Your task to perform on an android device: change text size in settings app Image 0: 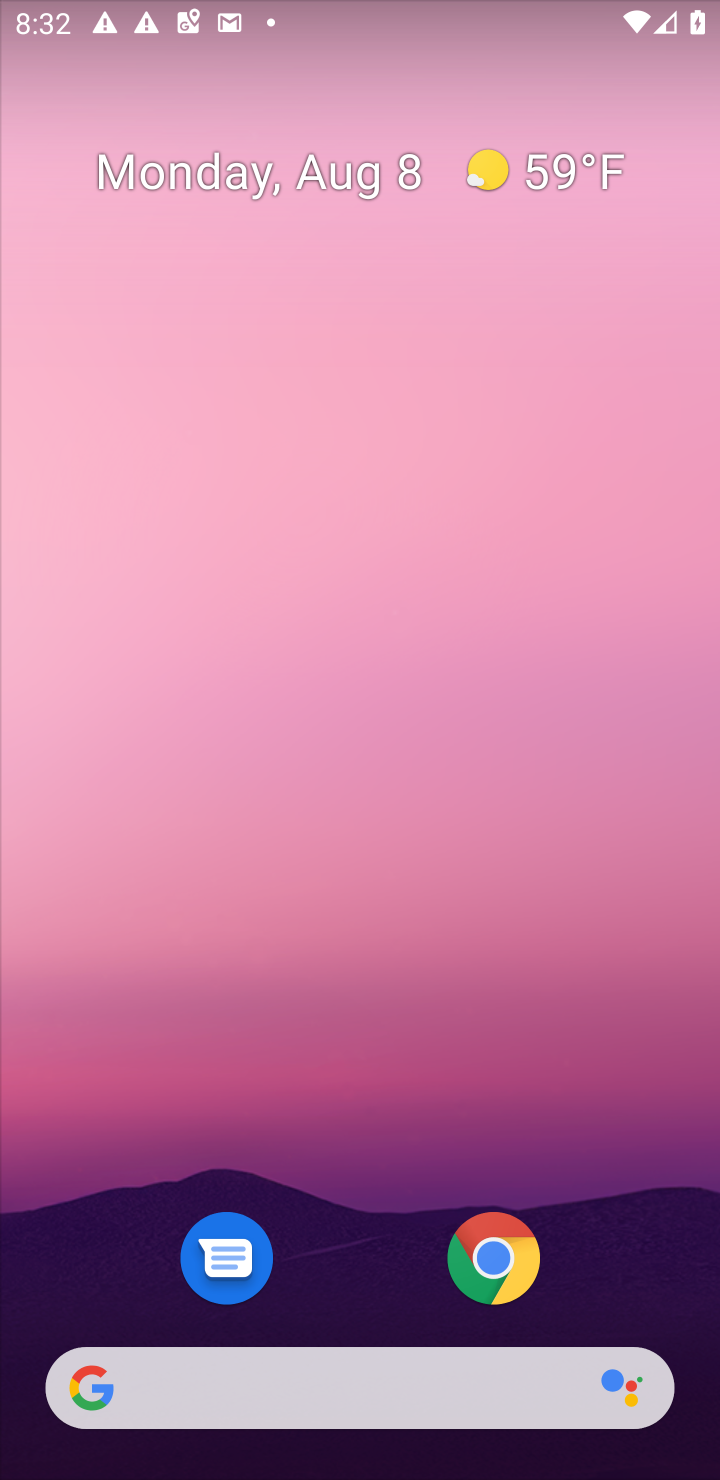
Step 0: drag from (435, 1110) to (350, 98)
Your task to perform on an android device: change text size in settings app Image 1: 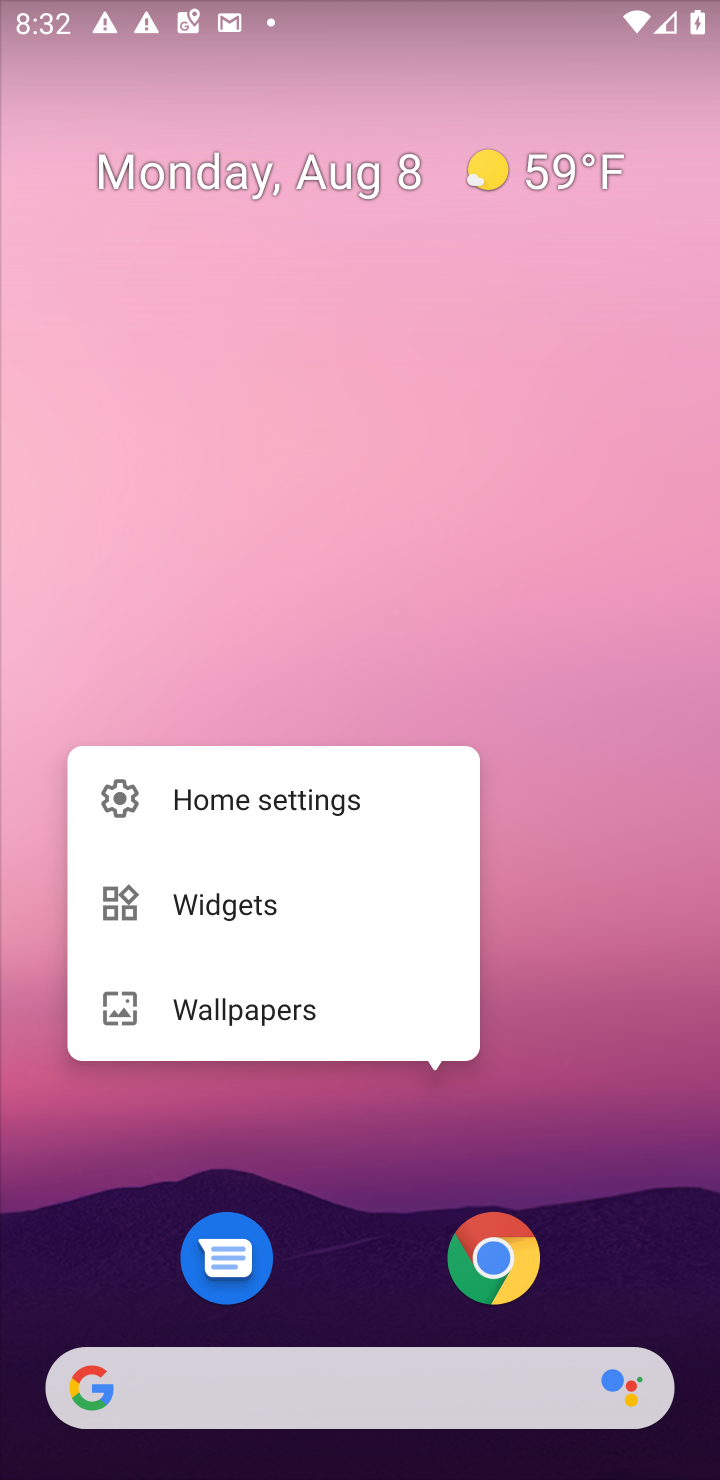
Step 1: click (531, 870)
Your task to perform on an android device: change text size in settings app Image 2: 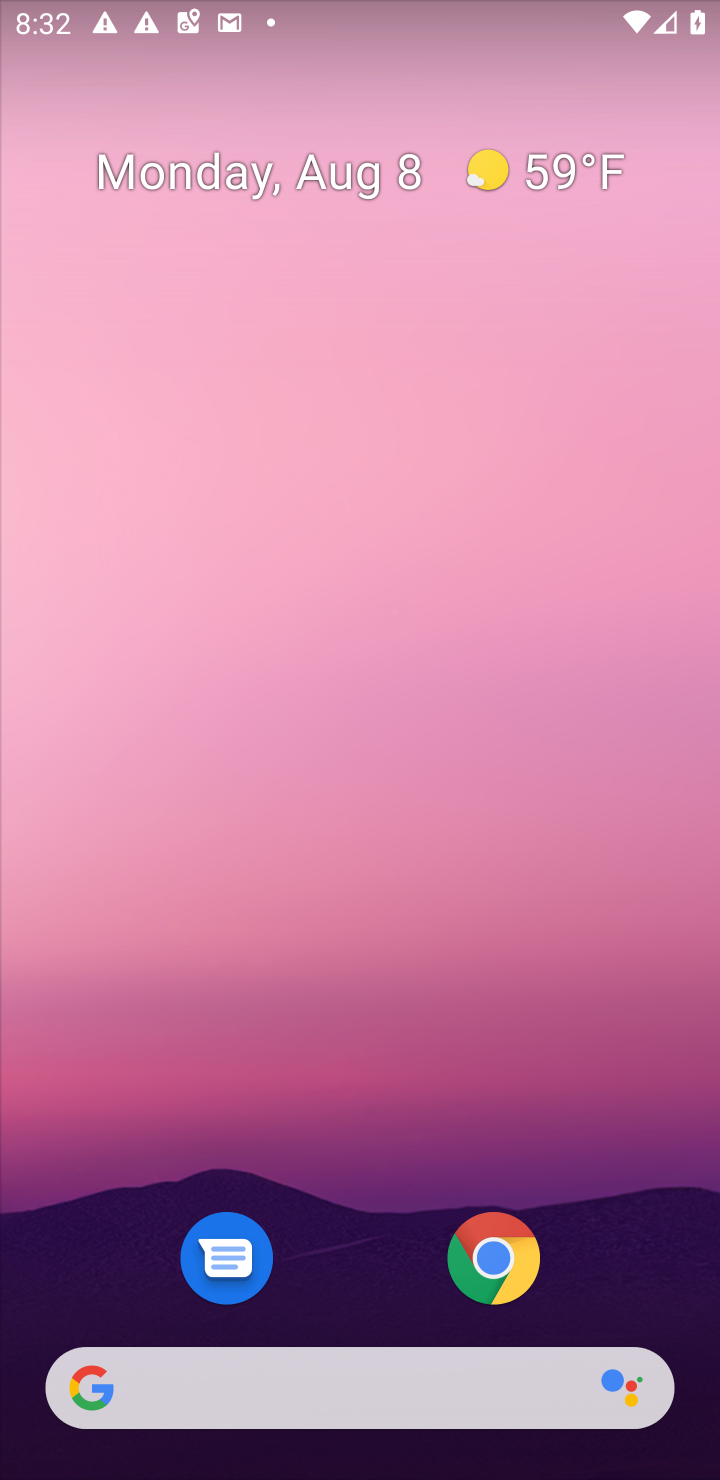
Step 2: click (531, 870)
Your task to perform on an android device: change text size in settings app Image 3: 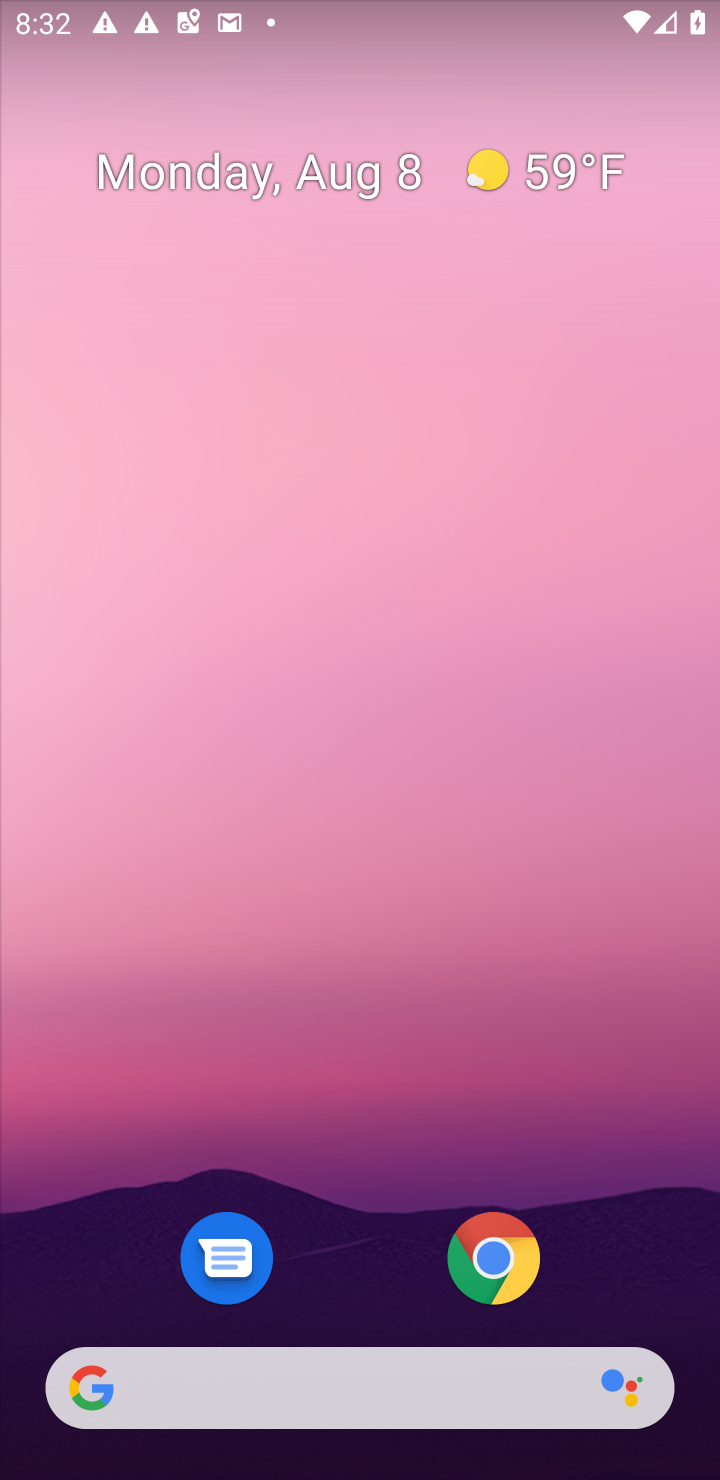
Step 3: drag from (375, 896) to (421, 282)
Your task to perform on an android device: change text size in settings app Image 4: 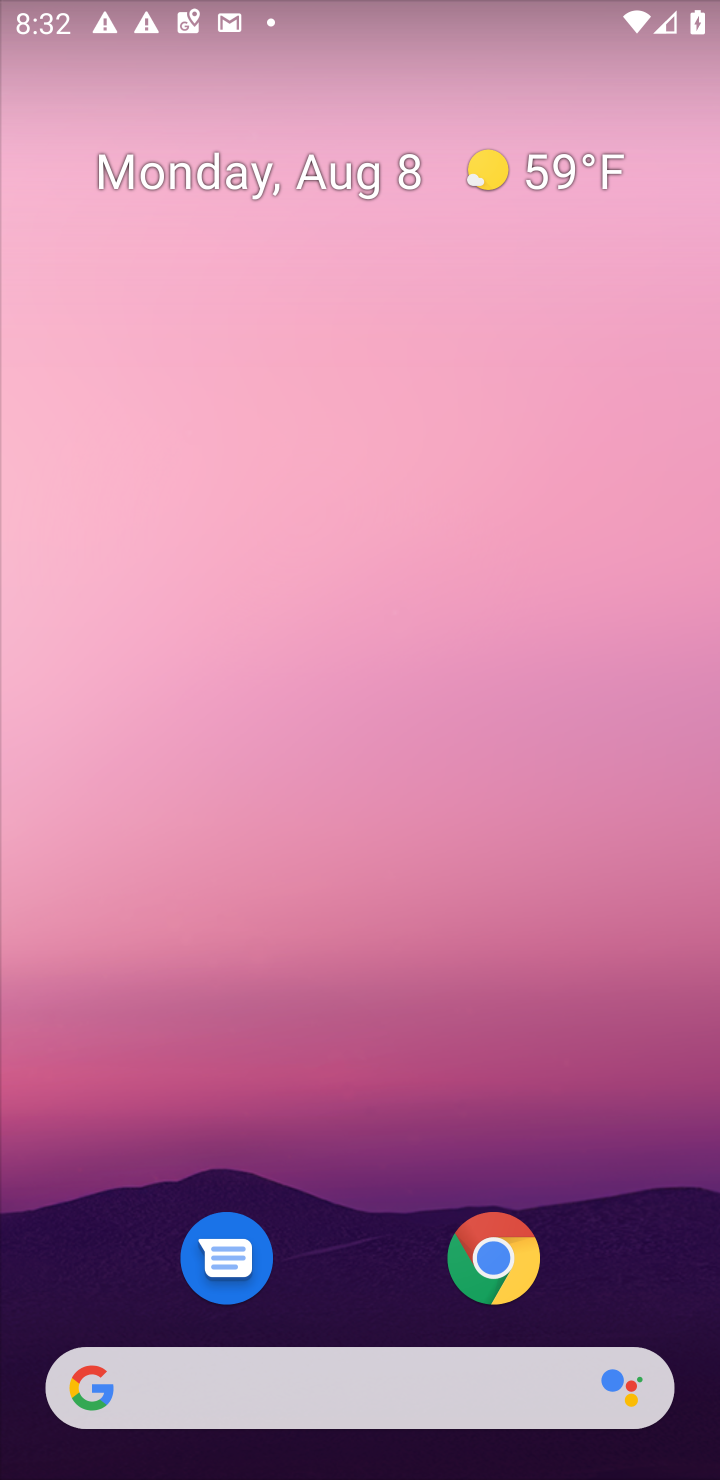
Step 4: drag from (385, 995) to (438, 338)
Your task to perform on an android device: change text size in settings app Image 5: 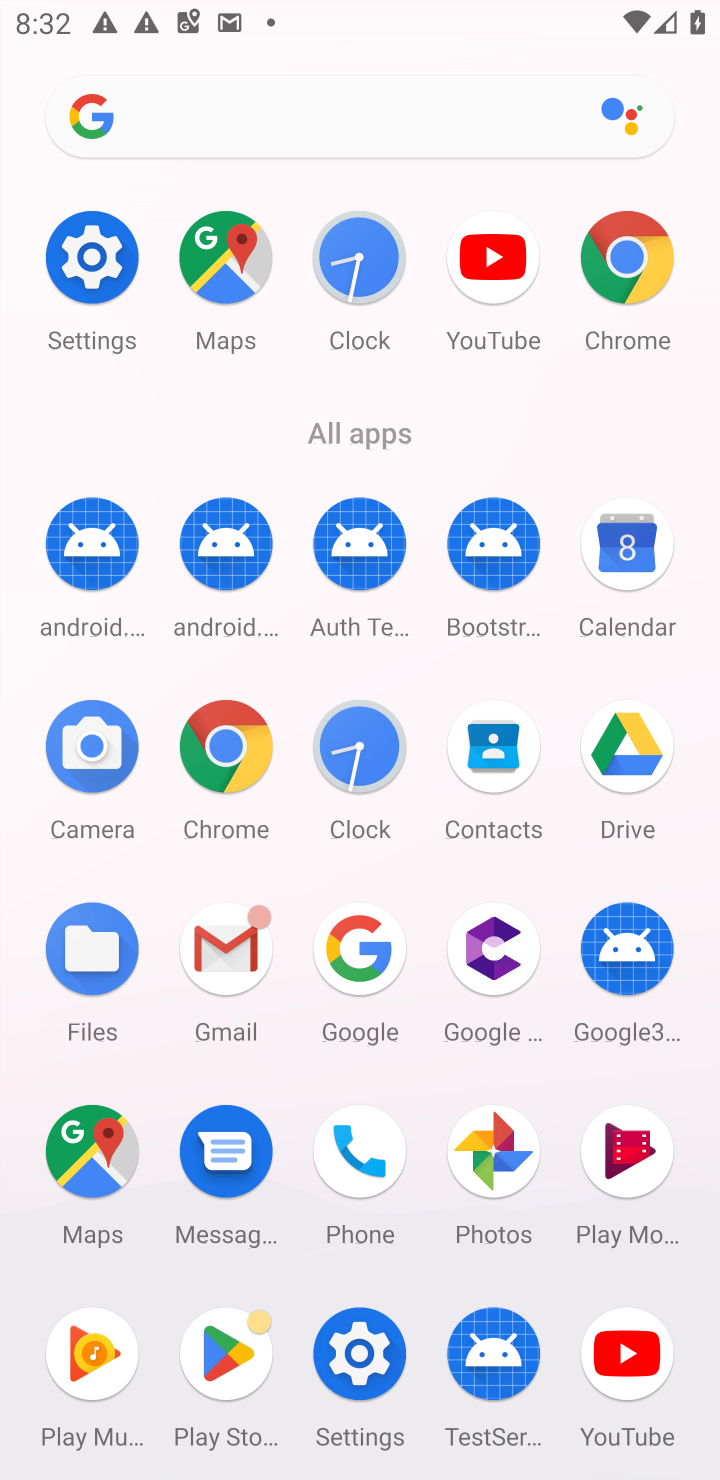
Step 5: click (364, 1358)
Your task to perform on an android device: change text size in settings app Image 6: 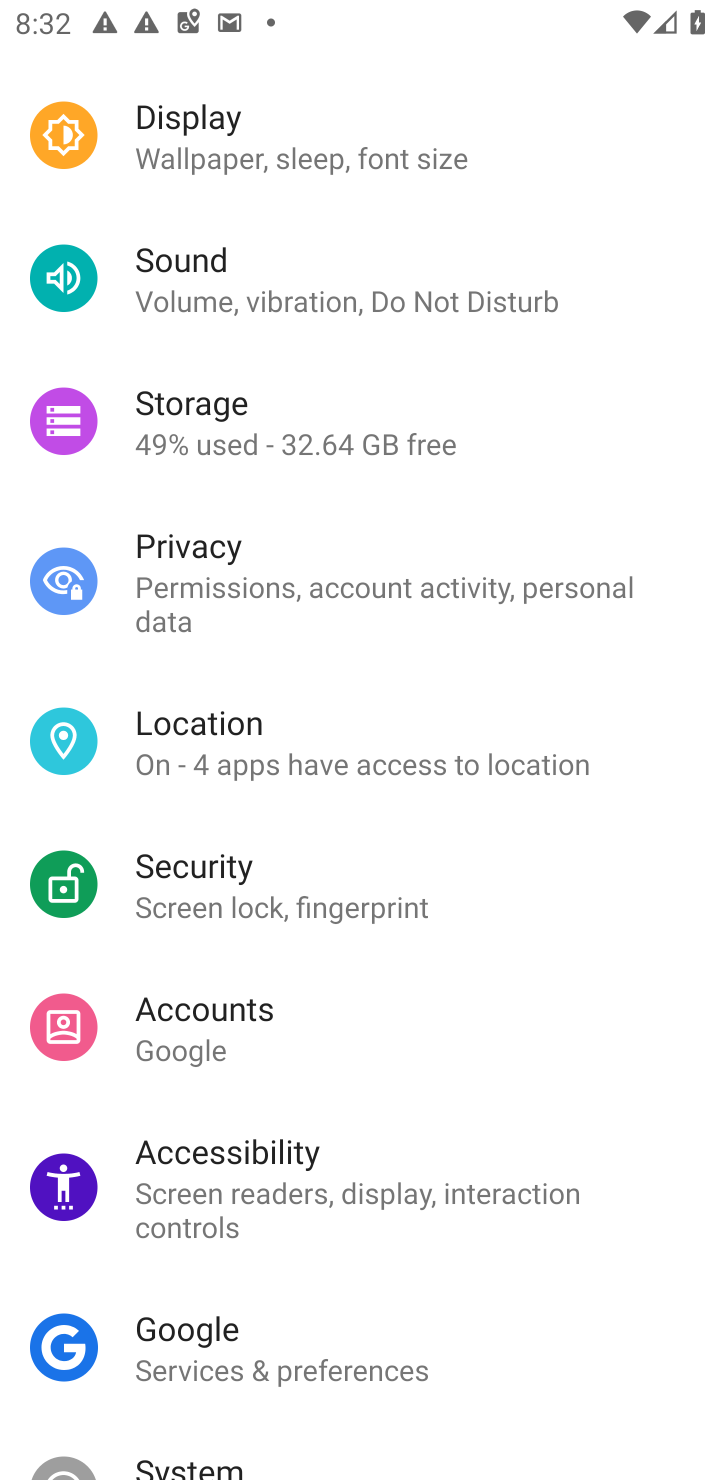
Step 6: click (279, 136)
Your task to perform on an android device: change text size in settings app Image 7: 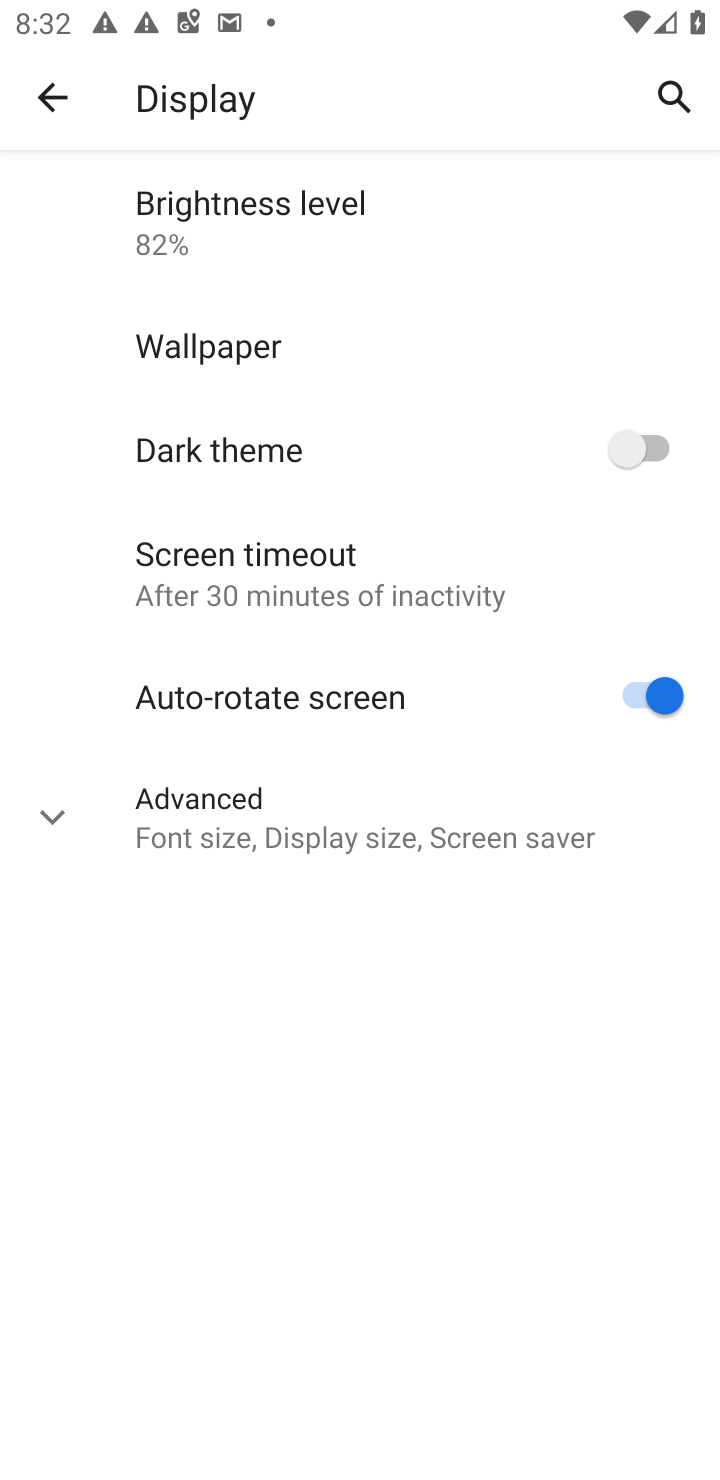
Step 7: click (303, 820)
Your task to perform on an android device: change text size in settings app Image 8: 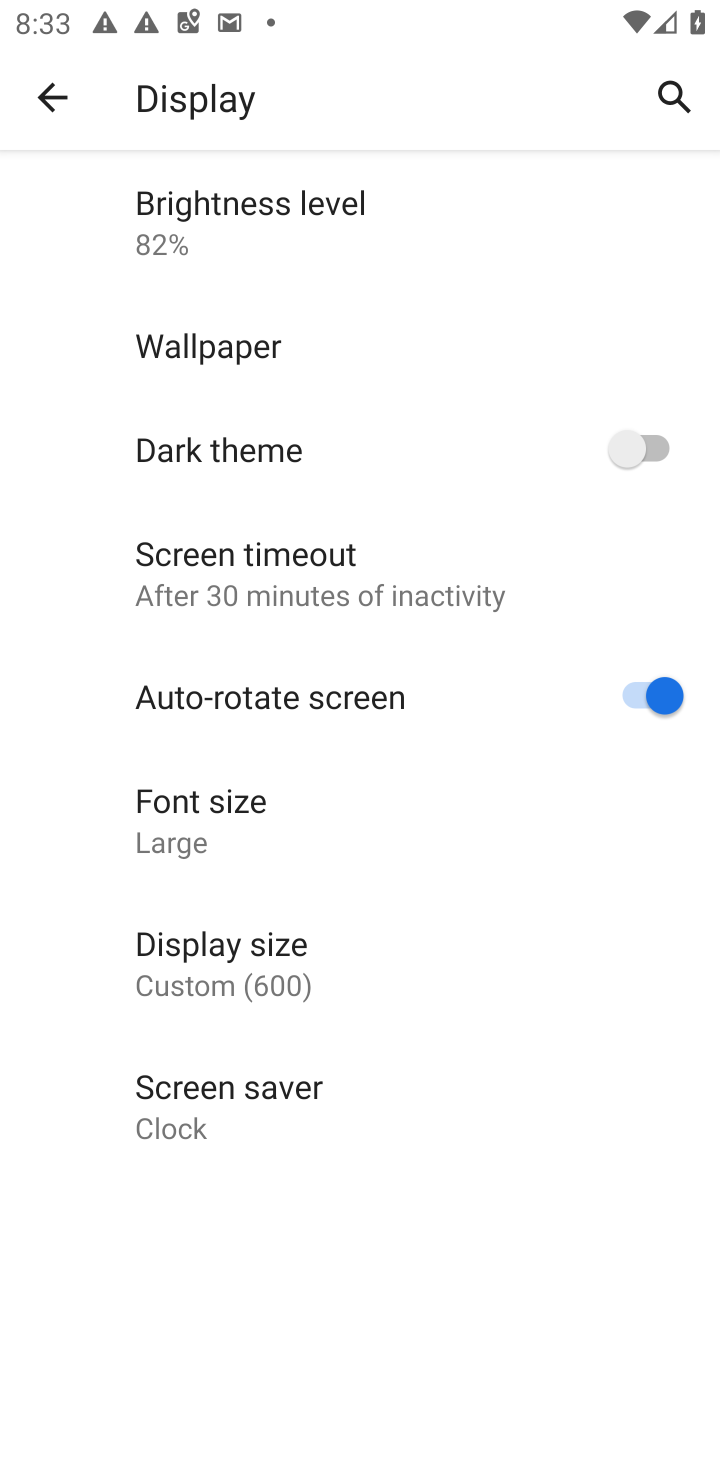
Step 8: click (189, 837)
Your task to perform on an android device: change text size in settings app Image 9: 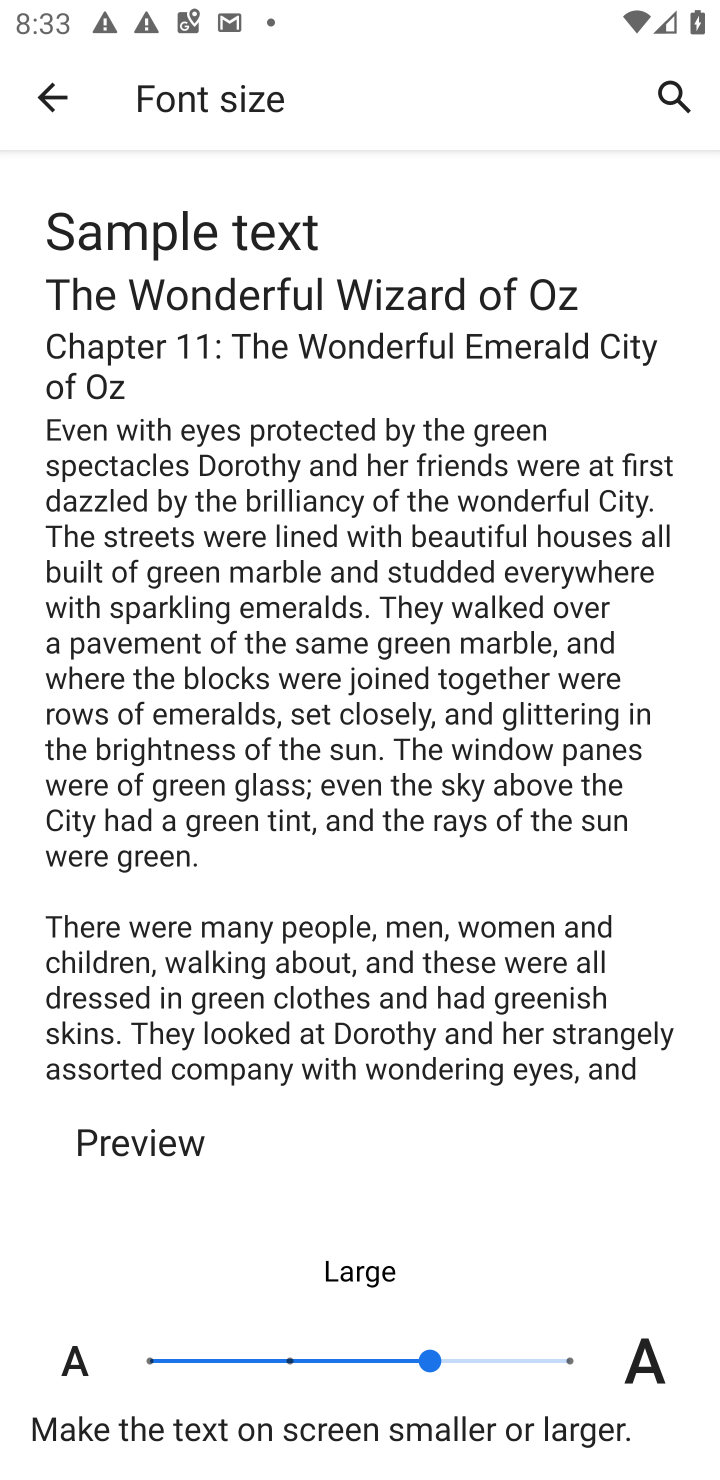
Step 9: task complete